Your task to perform on an android device: Open maps Image 0: 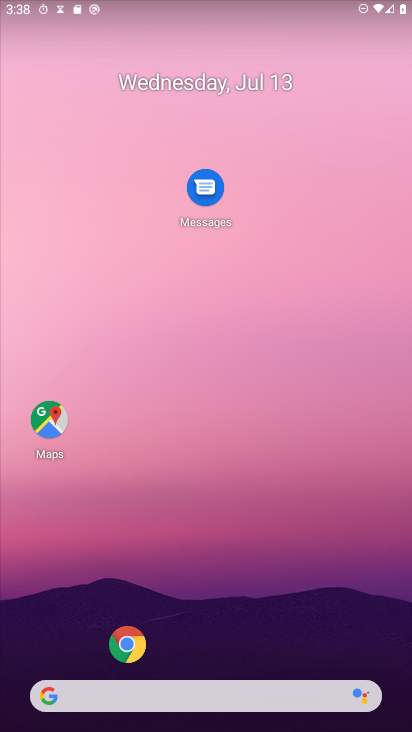
Step 0: click (33, 437)
Your task to perform on an android device: Open maps Image 1: 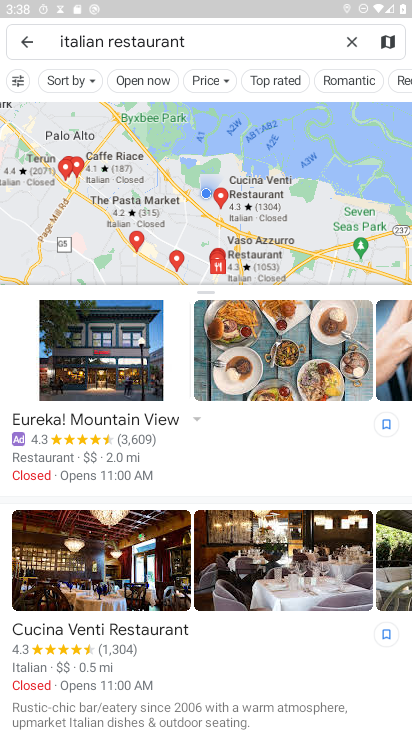
Step 1: click (20, 46)
Your task to perform on an android device: Open maps Image 2: 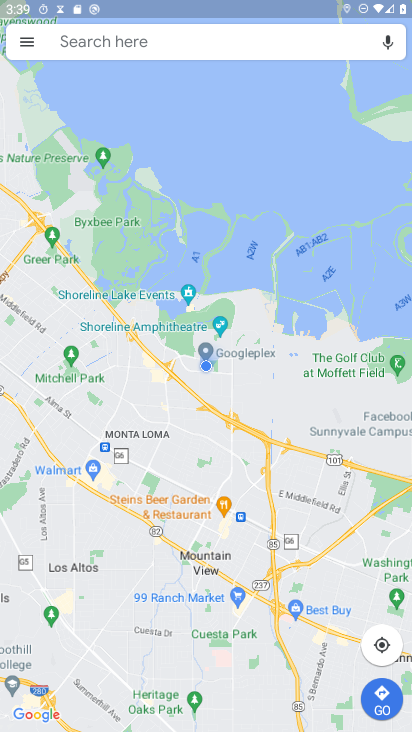
Step 2: task complete